Your task to perform on an android device: Search for vegetarian restaurants on Maps Image 0: 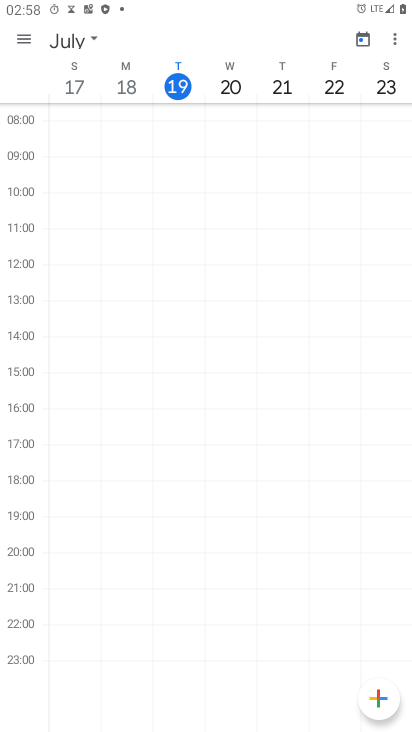
Step 0: press home button
Your task to perform on an android device: Search for vegetarian restaurants on Maps Image 1: 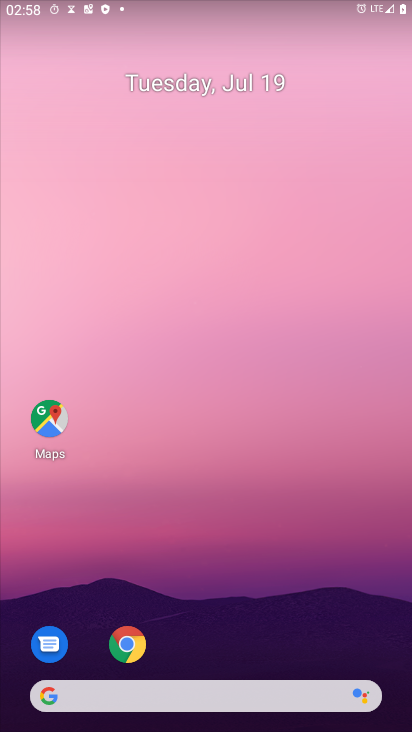
Step 1: drag from (220, 720) to (202, 254)
Your task to perform on an android device: Search for vegetarian restaurants on Maps Image 2: 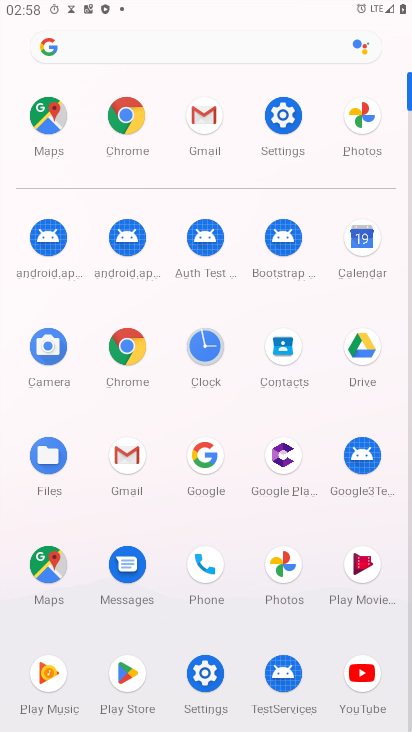
Step 2: click (49, 561)
Your task to perform on an android device: Search for vegetarian restaurants on Maps Image 3: 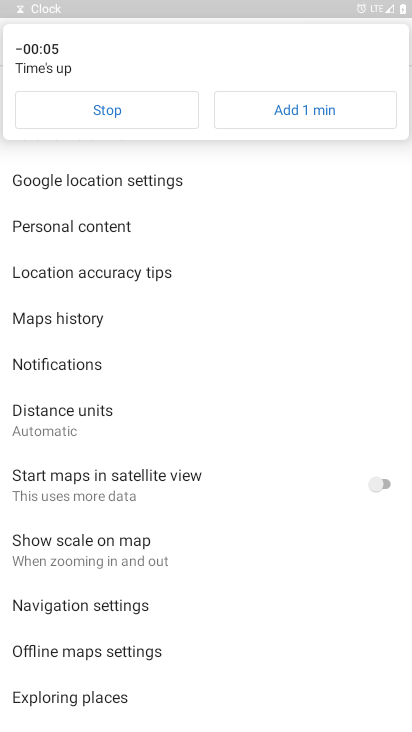
Step 3: click (105, 117)
Your task to perform on an android device: Search for vegetarian restaurants on Maps Image 4: 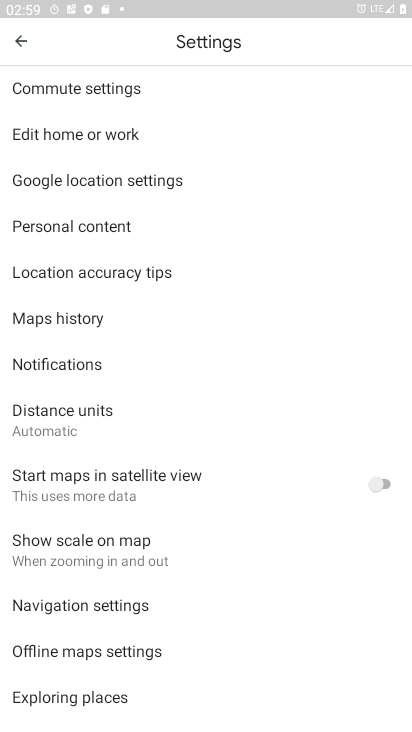
Step 4: click (20, 37)
Your task to perform on an android device: Search for vegetarian restaurants on Maps Image 5: 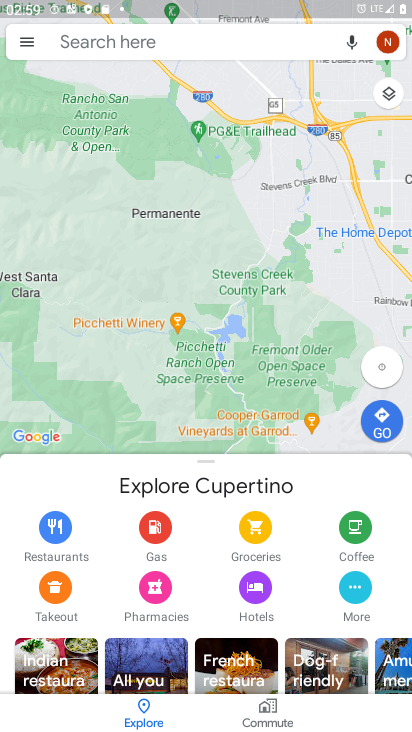
Step 5: click (191, 38)
Your task to perform on an android device: Search for vegetarian restaurants on Maps Image 6: 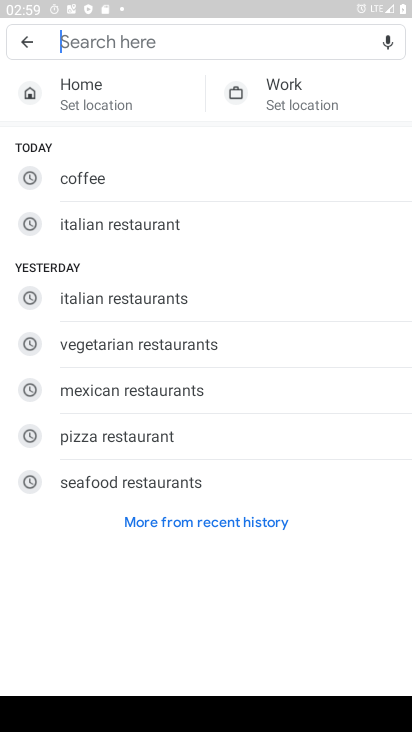
Step 6: type "vegetarian restaurants"
Your task to perform on an android device: Search for vegetarian restaurants on Maps Image 7: 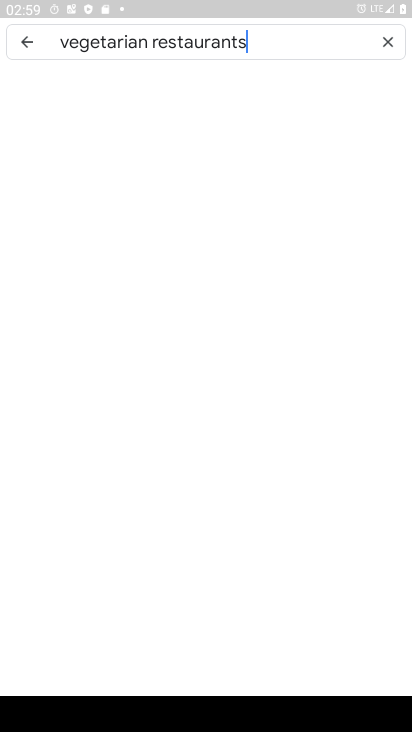
Step 7: type ""
Your task to perform on an android device: Search for vegetarian restaurants on Maps Image 8: 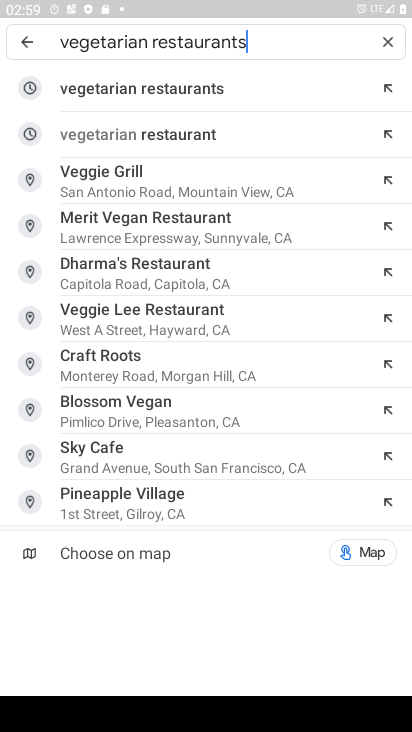
Step 8: click (186, 93)
Your task to perform on an android device: Search for vegetarian restaurants on Maps Image 9: 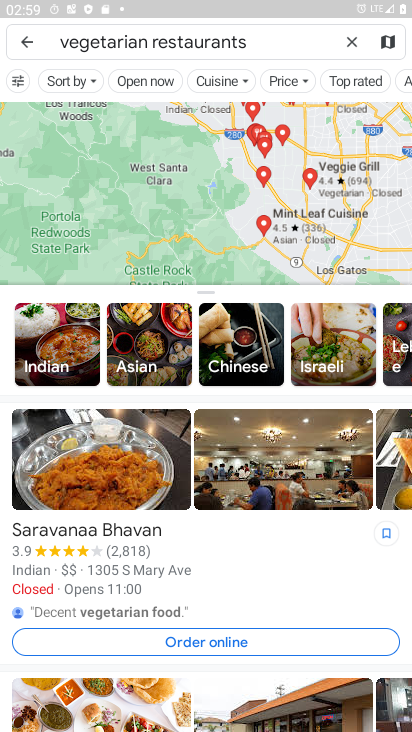
Step 9: task complete